Your task to perform on an android device: Go to CNN.com Image 0: 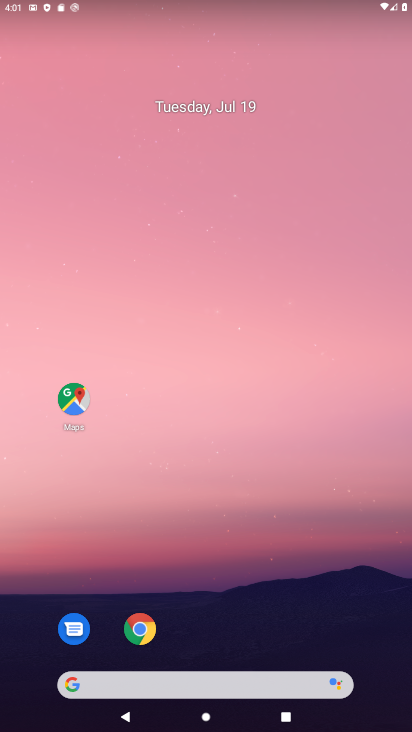
Step 0: drag from (234, 301) to (224, 211)
Your task to perform on an android device: Go to CNN.com Image 1: 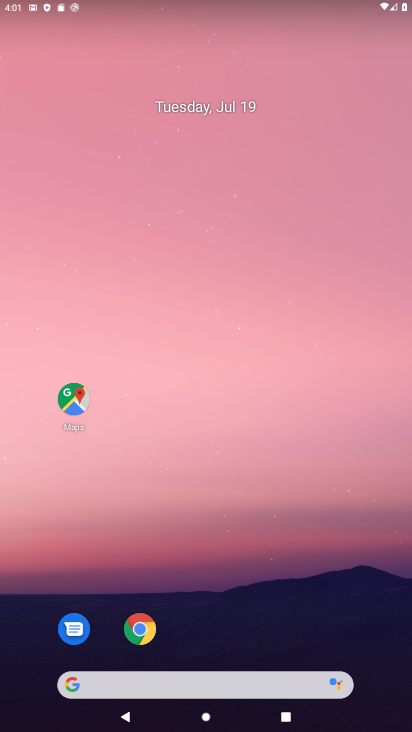
Step 1: drag from (229, 563) to (201, 215)
Your task to perform on an android device: Go to CNN.com Image 2: 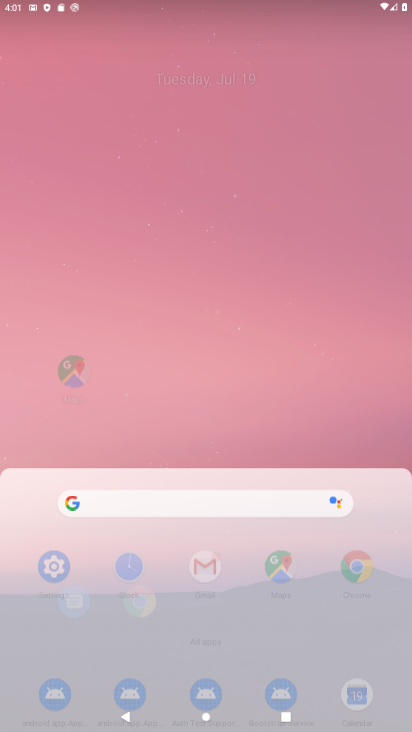
Step 2: drag from (245, 528) to (244, 86)
Your task to perform on an android device: Go to CNN.com Image 3: 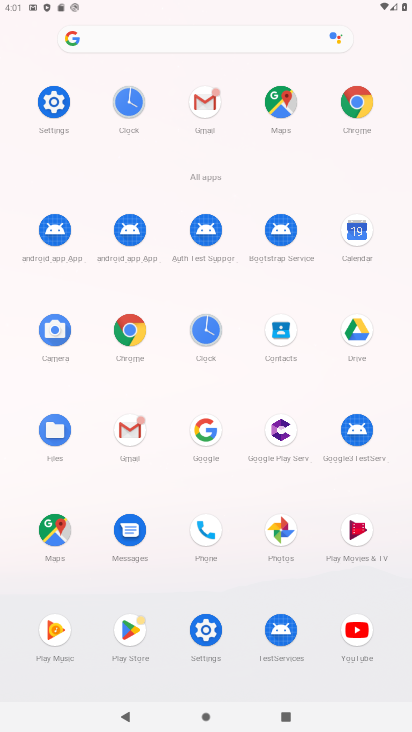
Step 3: click (351, 103)
Your task to perform on an android device: Go to CNN.com Image 4: 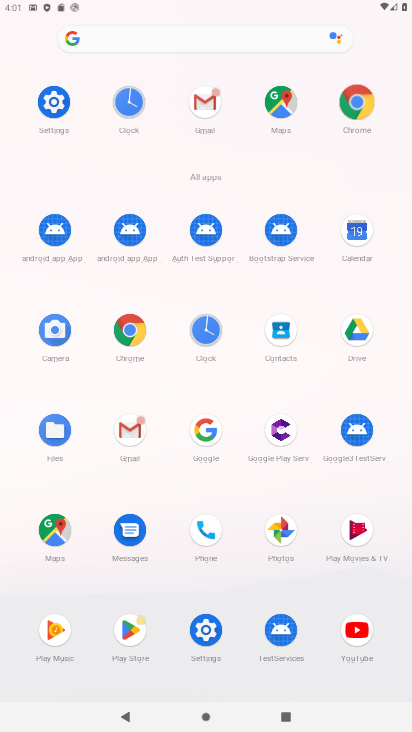
Step 4: click (347, 106)
Your task to perform on an android device: Go to CNN.com Image 5: 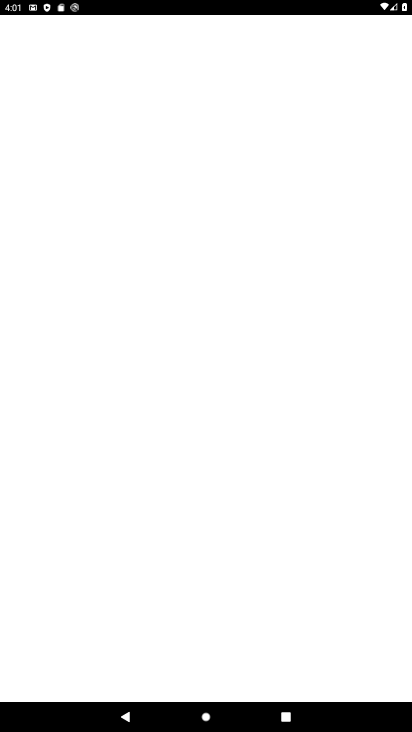
Step 5: click (346, 108)
Your task to perform on an android device: Go to CNN.com Image 6: 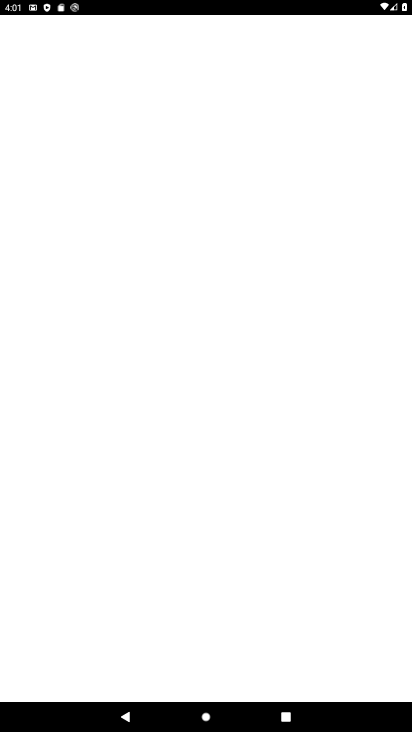
Step 6: click (346, 108)
Your task to perform on an android device: Go to CNN.com Image 7: 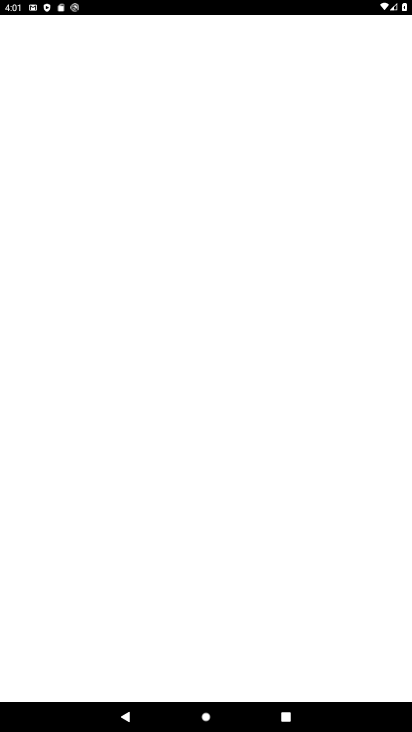
Step 7: click (346, 108)
Your task to perform on an android device: Go to CNN.com Image 8: 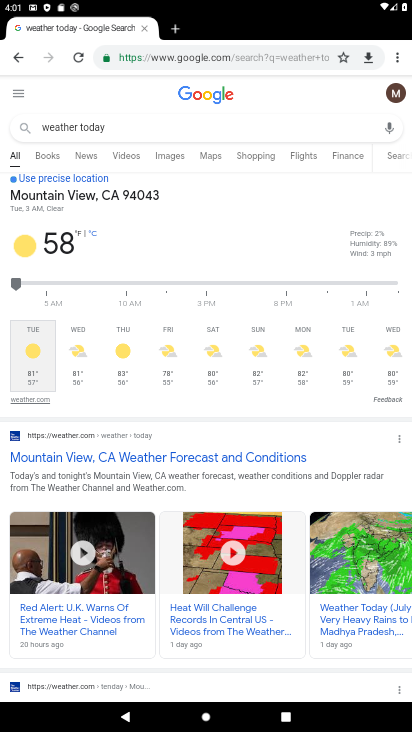
Step 8: click (284, 114)
Your task to perform on an android device: Go to CNN.com Image 9: 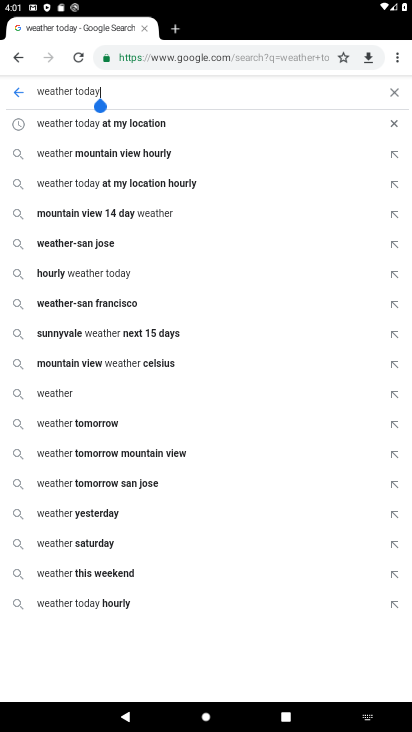
Step 9: drag from (392, 59) to (286, 53)
Your task to perform on an android device: Go to CNN.com Image 10: 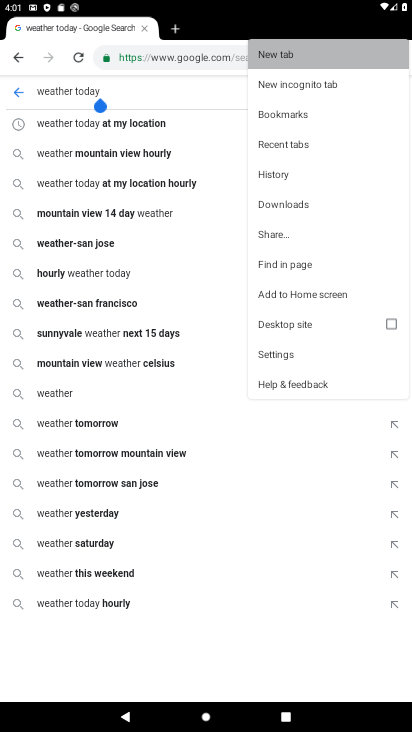
Step 10: click (288, 53)
Your task to perform on an android device: Go to CNN.com Image 11: 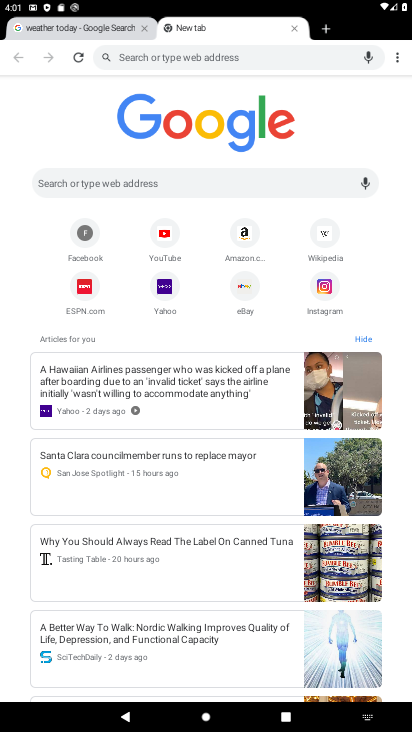
Step 11: click (60, 184)
Your task to perform on an android device: Go to CNN.com Image 12: 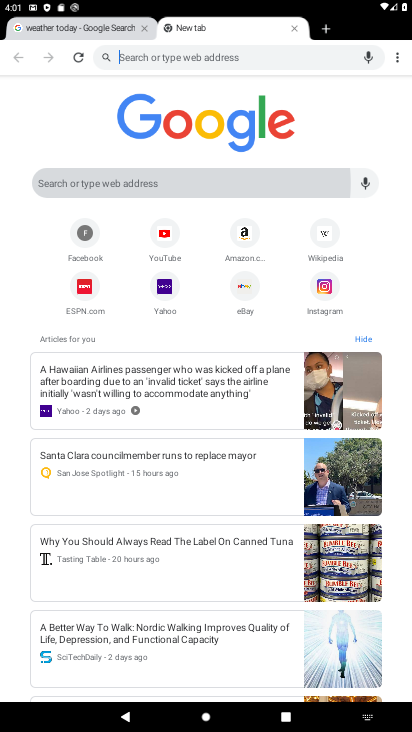
Step 12: click (59, 183)
Your task to perform on an android device: Go to CNN.com Image 13: 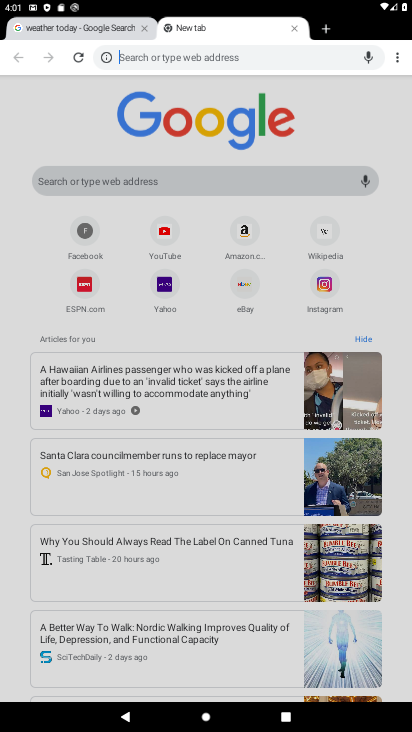
Step 13: click (59, 183)
Your task to perform on an android device: Go to CNN.com Image 14: 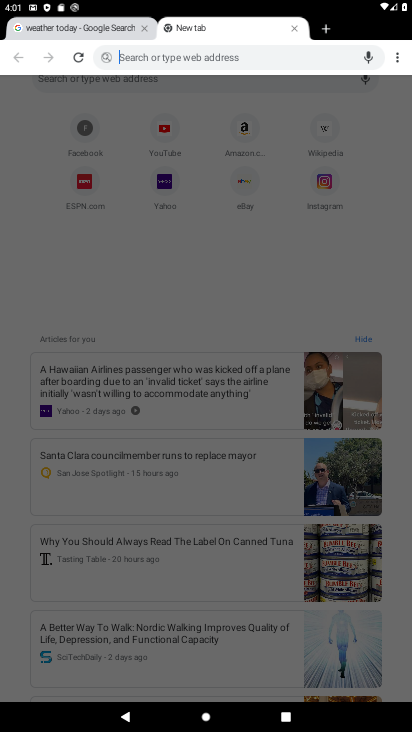
Step 14: click (59, 183)
Your task to perform on an android device: Go to CNN.com Image 15: 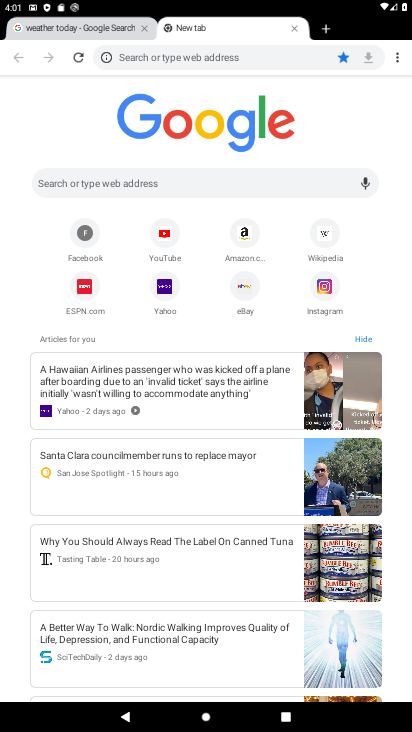
Step 15: click (137, 52)
Your task to perform on an android device: Go to CNN.com Image 16: 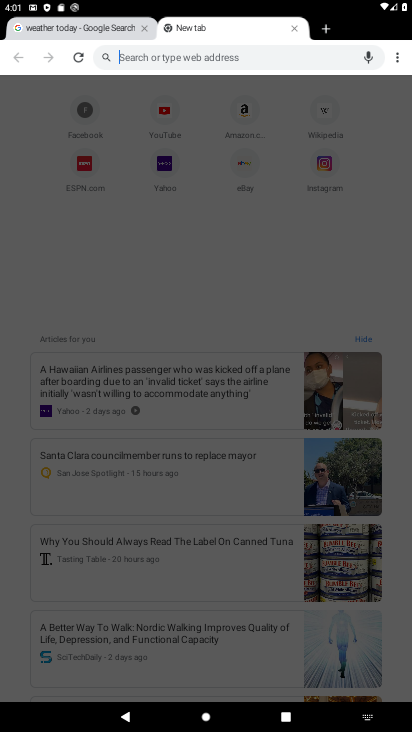
Step 16: type "CNN.com"
Your task to perform on an android device: Go to CNN.com Image 17: 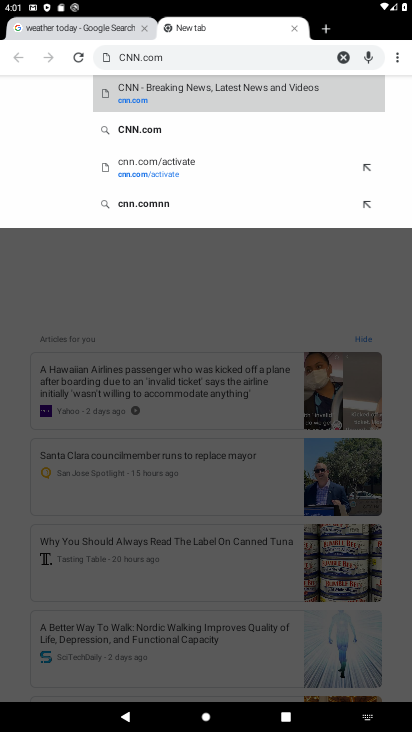
Step 17: click (152, 85)
Your task to perform on an android device: Go to CNN.com Image 18: 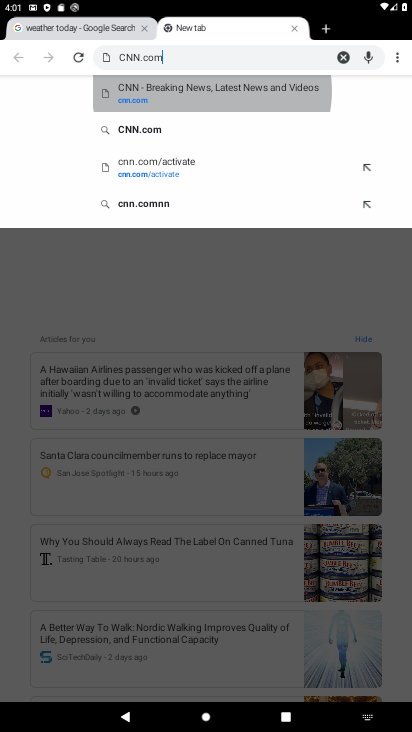
Step 18: click (151, 85)
Your task to perform on an android device: Go to CNN.com Image 19: 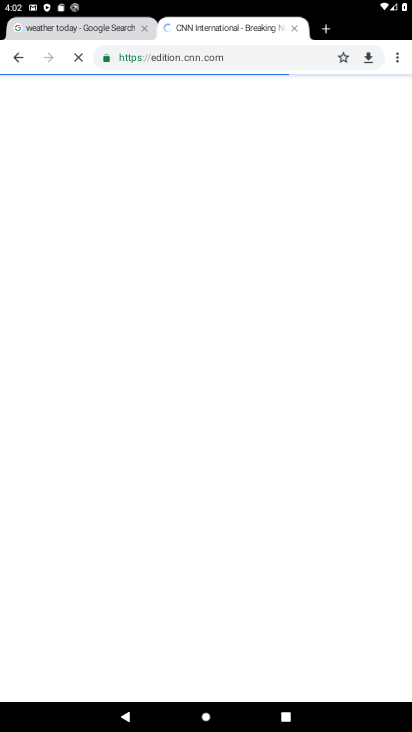
Step 19: task complete